Your task to perform on an android device: Go to eBay Image 0: 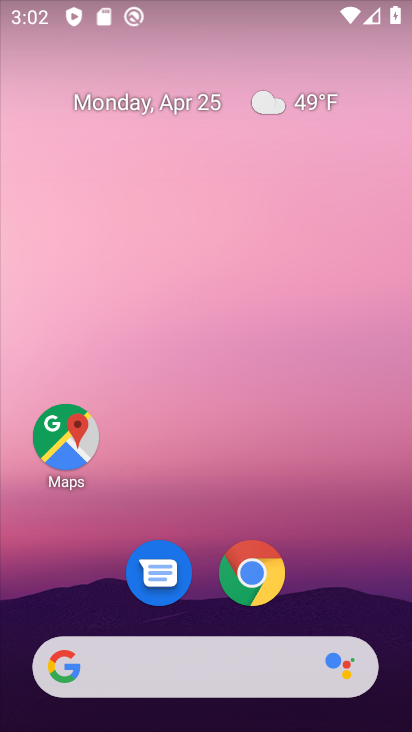
Step 0: click (271, 572)
Your task to perform on an android device: Go to eBay Image 1: 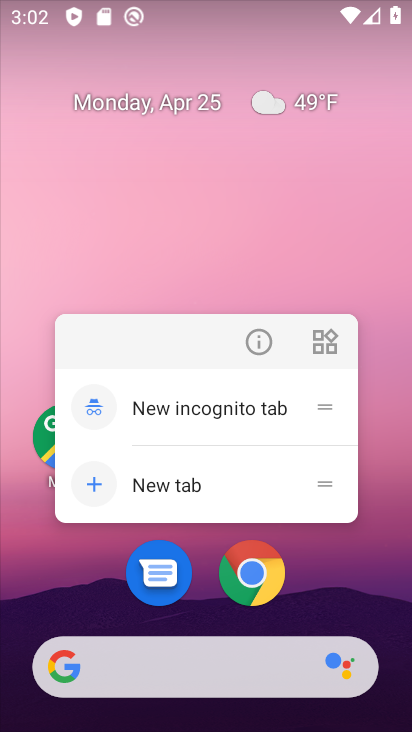
Step 1: click (260, 579)
Your task to perform on an android device: Go to eBay Image 2: 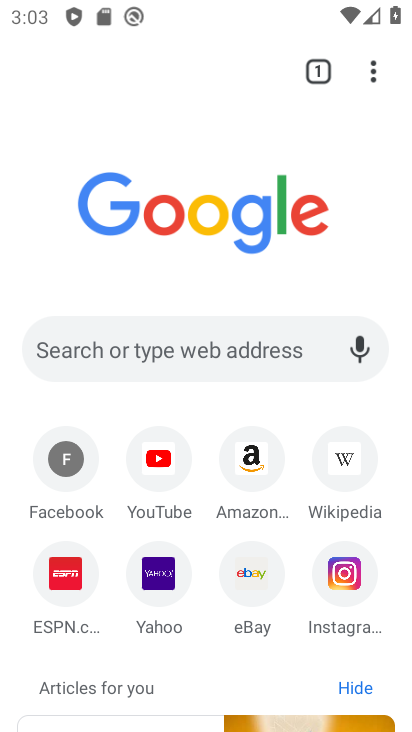
Step 2: click (267, 592)
Your task to perform on an android device: Go to eBay Image 3: 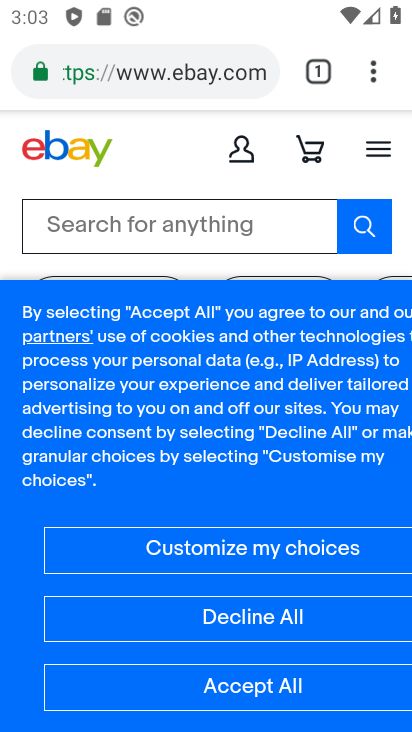
Step 3: task complete